Your task to perform on an android device: Open notification settings Image 0: 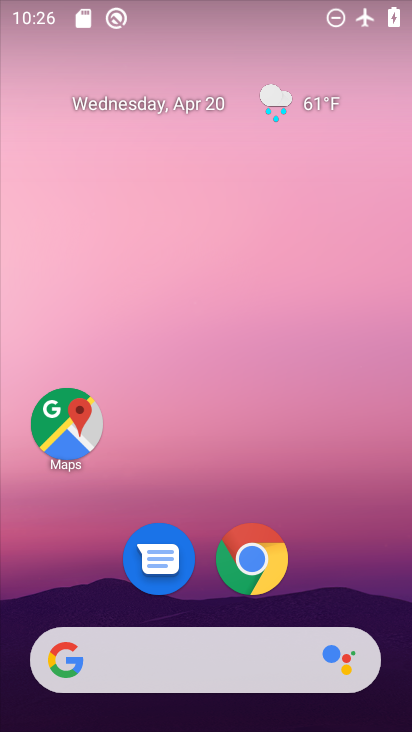
Step 0: drag from (368, 604) to (290, 199)
Your task to perform on an android device: Open notification settings Image 1: 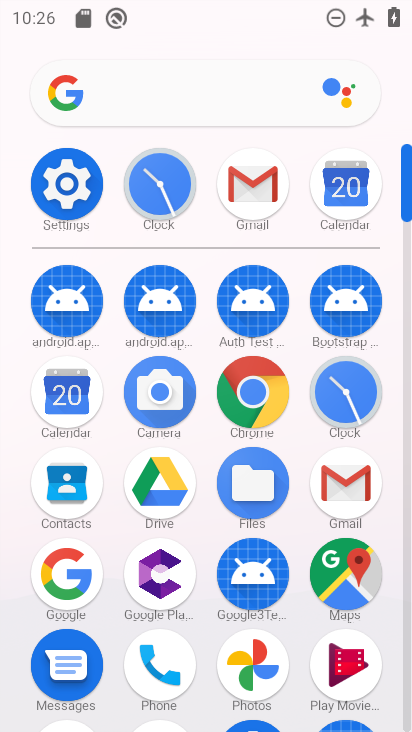
Step 1: click (408, 685)
Your task to perform on an android device: Open notification settings Image 2: 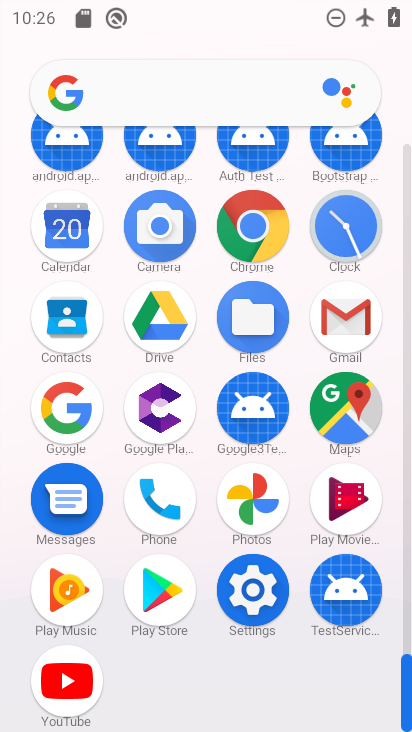
Step 2: click (249, 596)
Your task to perform on an android device: Open notification settings Image 3: 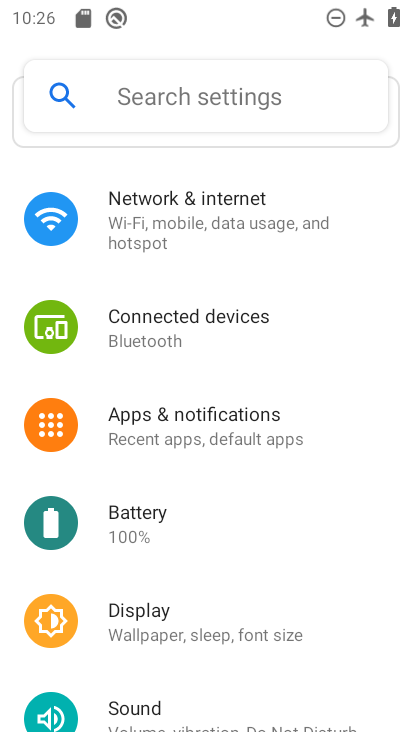
Step 3: click (190, 426)
Your task to perform on an android device: Open notification settings Image 4: 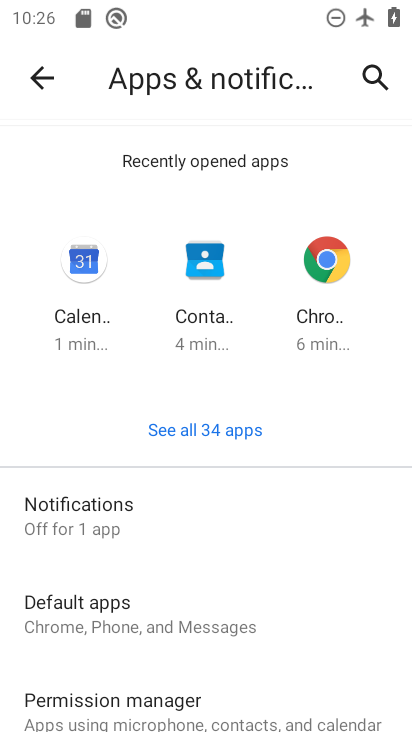
Step 4: drag from (152, 572) to (169, 387)
Your task to perform on an android device: Open notification settings Image 5: 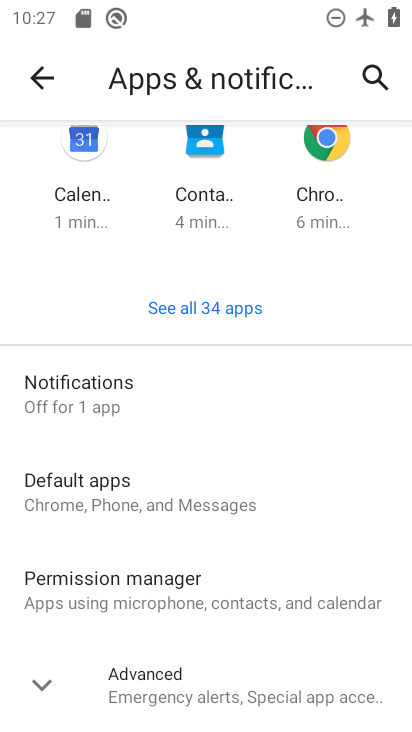
Step 5: click (31, 685)
Your task to perform on an android device: Open notification settings Image 6: 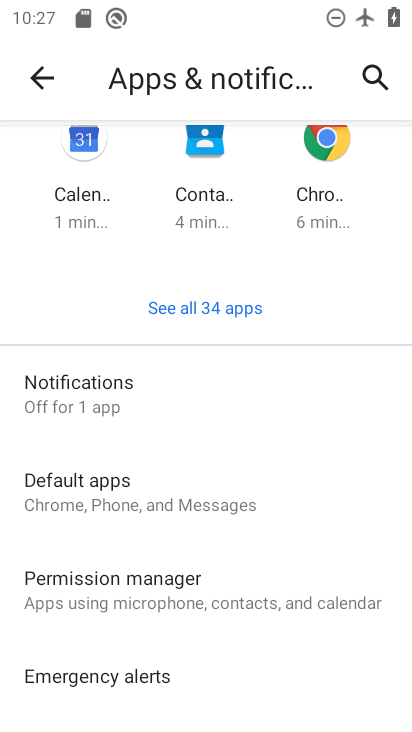
Step 6: click (88, 390)
Your task to perform on an android device: Open notification settings Image 7: 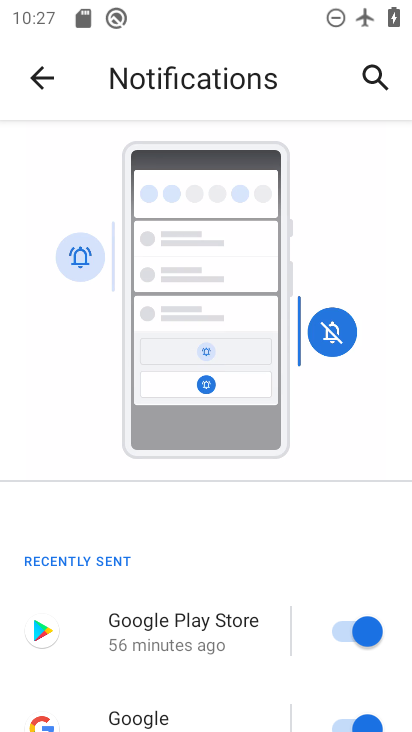
Step 7: drag from (268, 655) to (247, 276)
Your task to perform on an android device: Open notification settings Image 8: 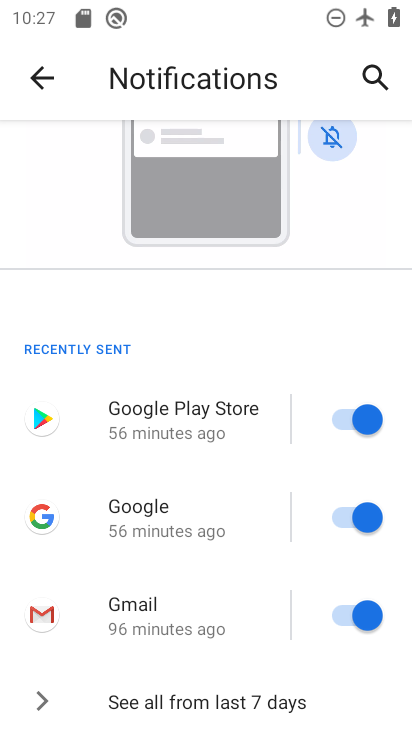
Step 8: drag from (288, 625) to (264, 263)
Your task to perform on an android device: Open notification settings Image 9: 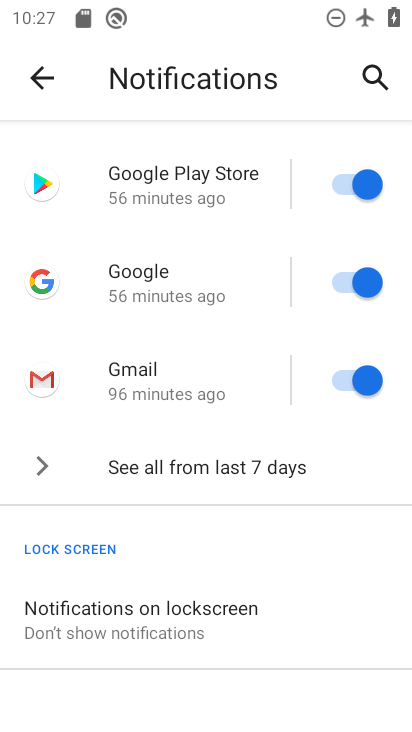
Step 9: drag from (287, 542) to (250, 224)
Your task to perform on an android device: Open notification settings Image 10: 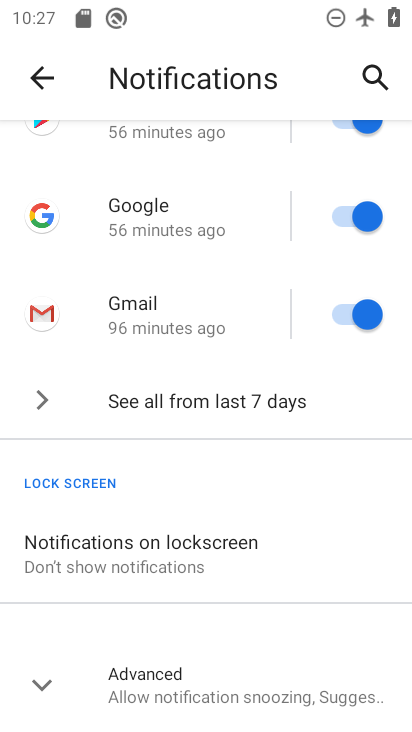
Step 10: click (34, 684)
Your task to perform on an android device: Open notification settings Image 11: 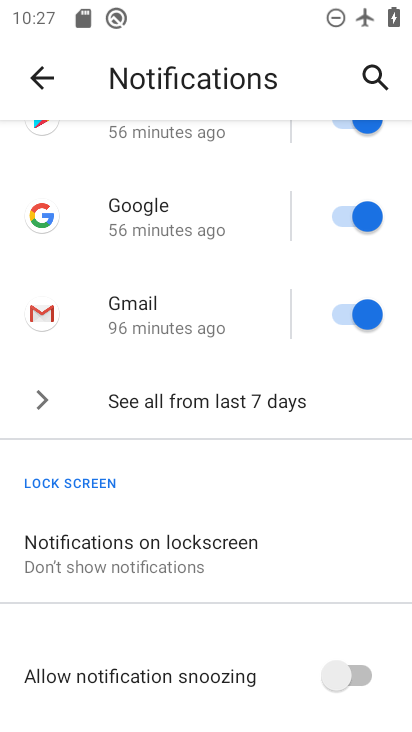
Step 11: task complete